Your task to perform on an android device: Open network settings Image 0: 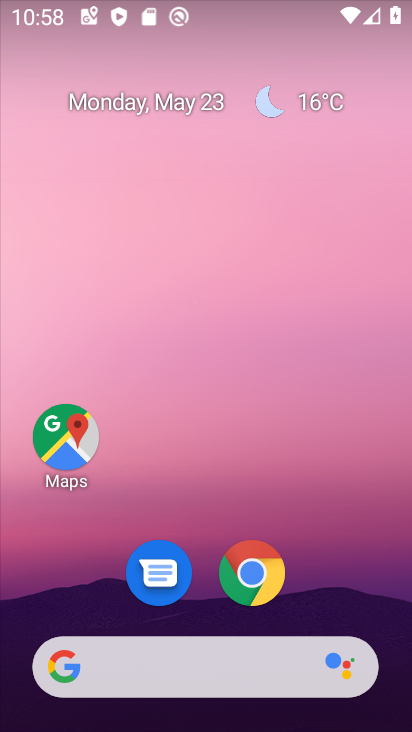
Step 0: drag from (337, 581) to (283, 54)
Your task to perform on an android device: Open network settings Image 1: 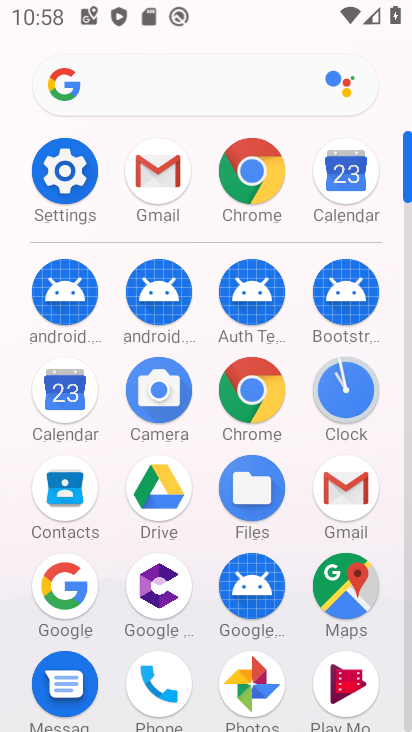
Step 1: click (6, 195)
Your task to perform on an android device: Open network settings Image 2: 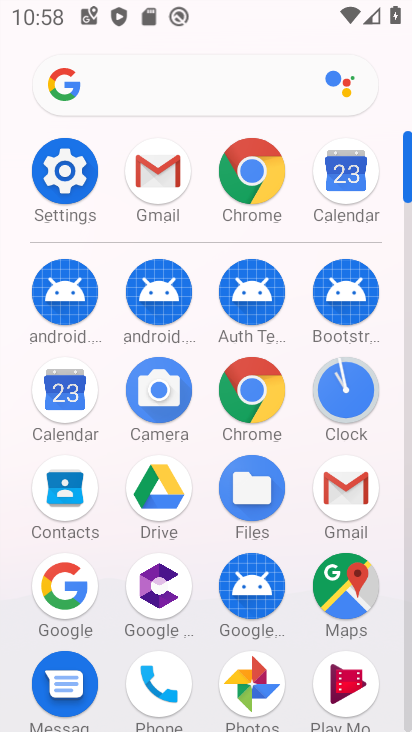
Step 2: click (63, 165)
Your task to perform on an android device: Open network settings Image 3: 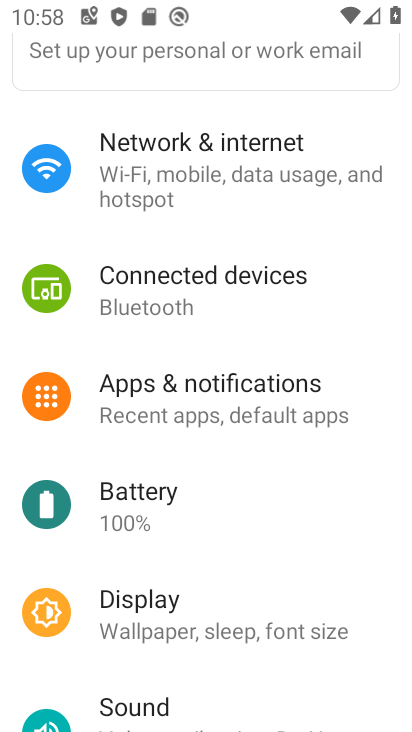
Step 3: click (252, 180)
Your task to perform on an android device: Open network settings Image 4: 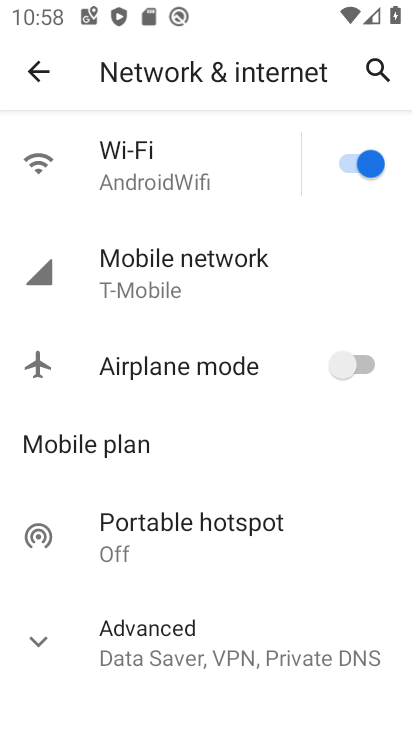
Step 4: click (174, 168)
Your task to perform on an android device: Open network settings Image 5: 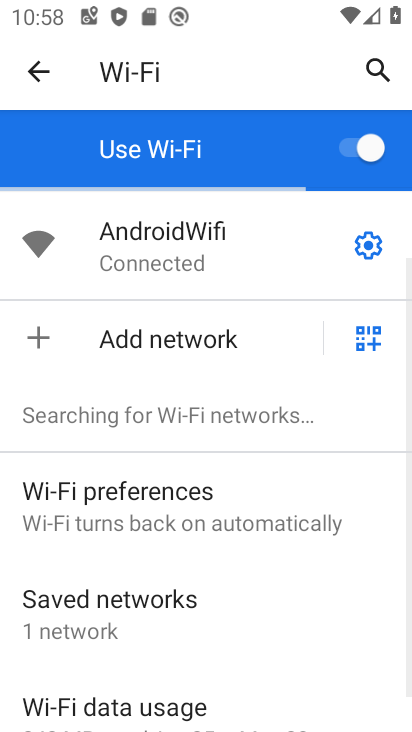
Step 5: task complete